Your task to perform on an android device: Go to battery settings Image 0: 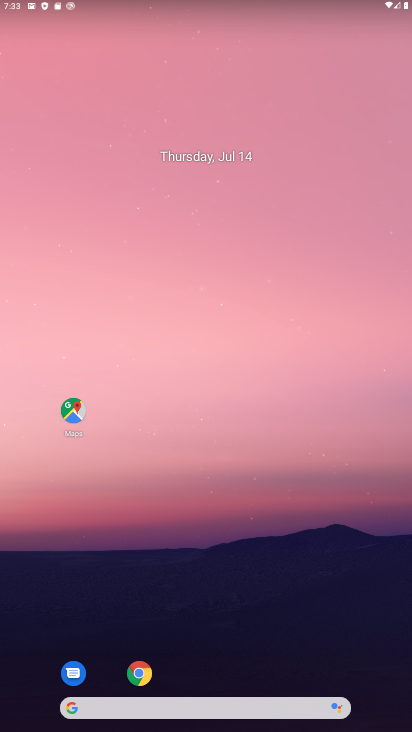
Step 0: drag from (212, 579) to (404, 84)
Your task to perform on an android device: Go to battery settings Image 1: 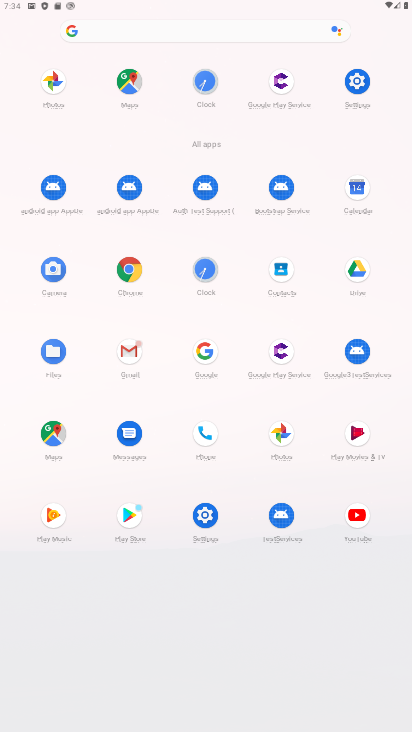
Step 1: click (206, 517)
Your task to perform on an android device: Go to battery settings Image 2: 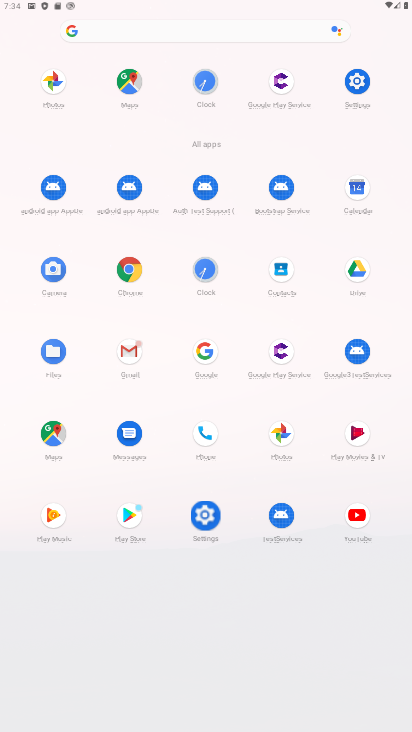
Step 2: click (206, 517)
Your task to perform on an android device: Go to battery settings Image 3: 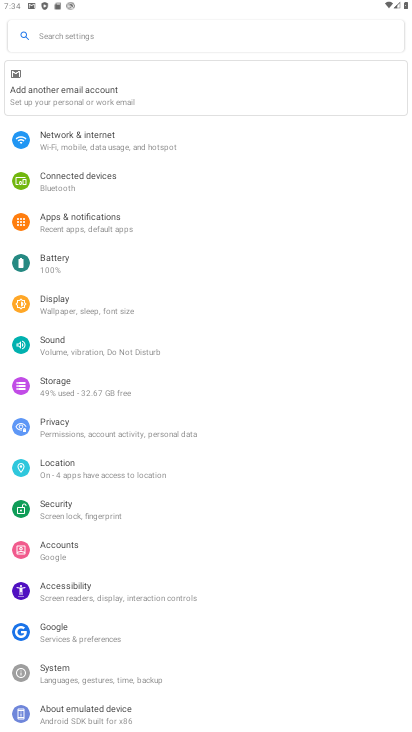
Step 3: drag from (194, 581) to (253, 271)
Your task to perform on an android device: Go to battery settings Image 4: 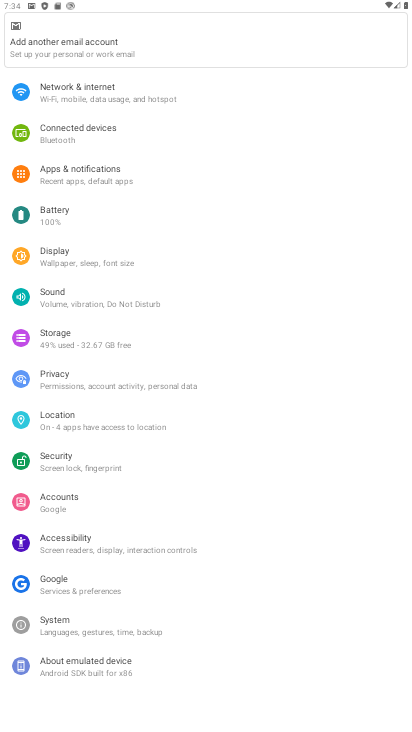
Step 4: click (99, 223)
Your task to perform on an android device: Go to battery settings Image 5: 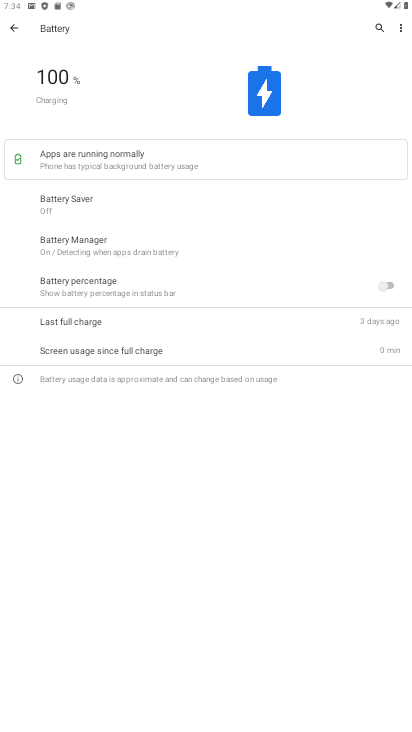
Step 5: task complete